Your task to perform on an android device: check out phone information Image 0: 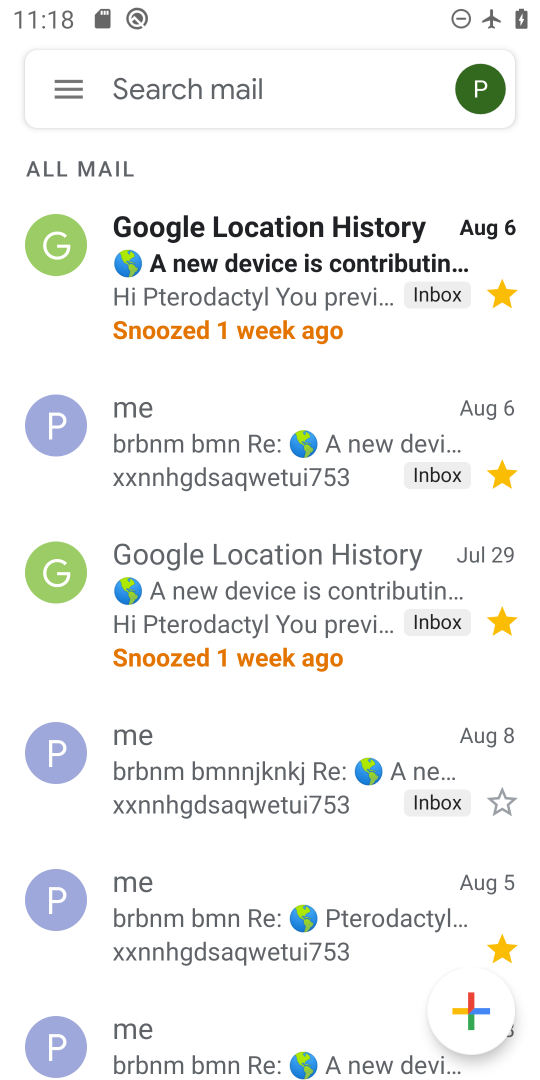
Step 0: press home button
Your task to perform on an android device: check out phone information Image 1: 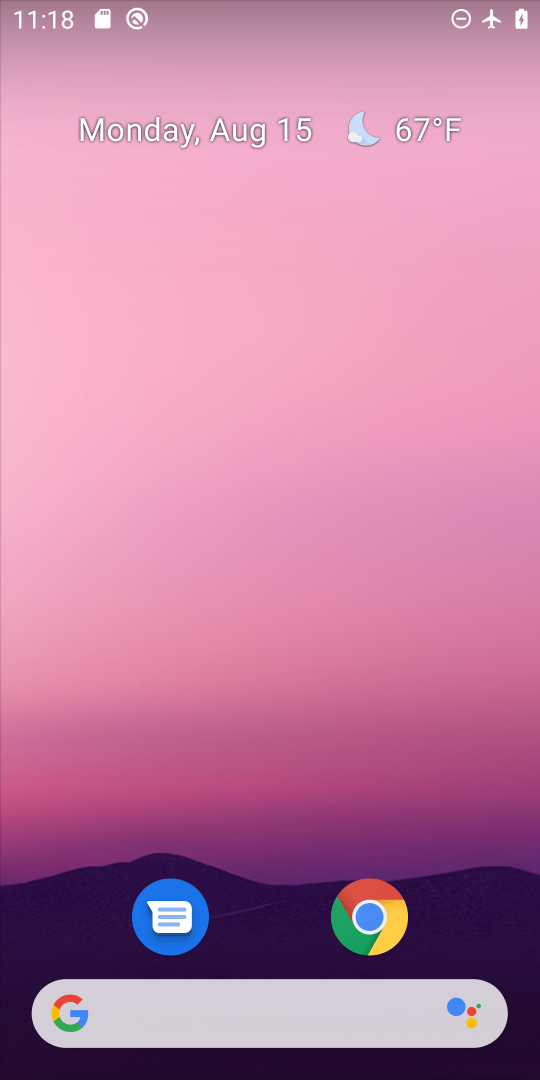
Step 1: drag from (242, 859) to (282, 101)
Your task to perform on an android device: check out phone information Image 2: 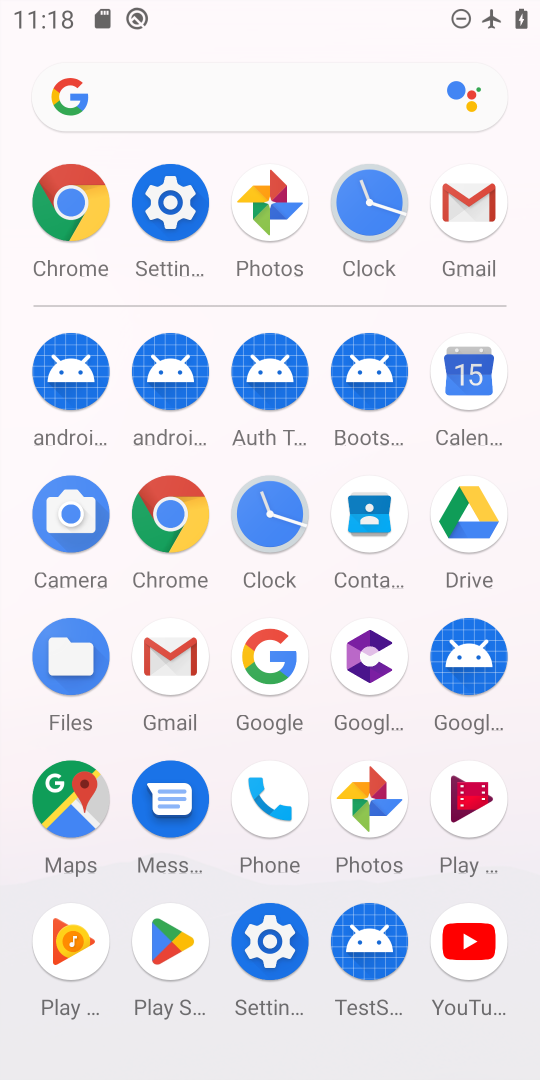
Step 2: click (277, 803)
Your task to perform on an android device: check out phone information Image 3: 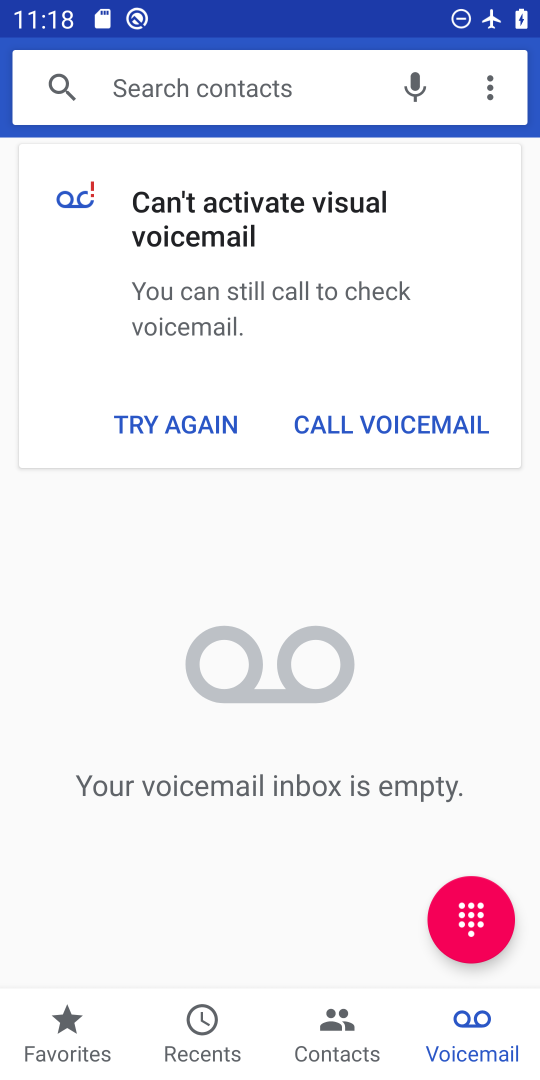
Step 3: click (491, 75)
Your task to perform on an android device: check out phone information Image 4: 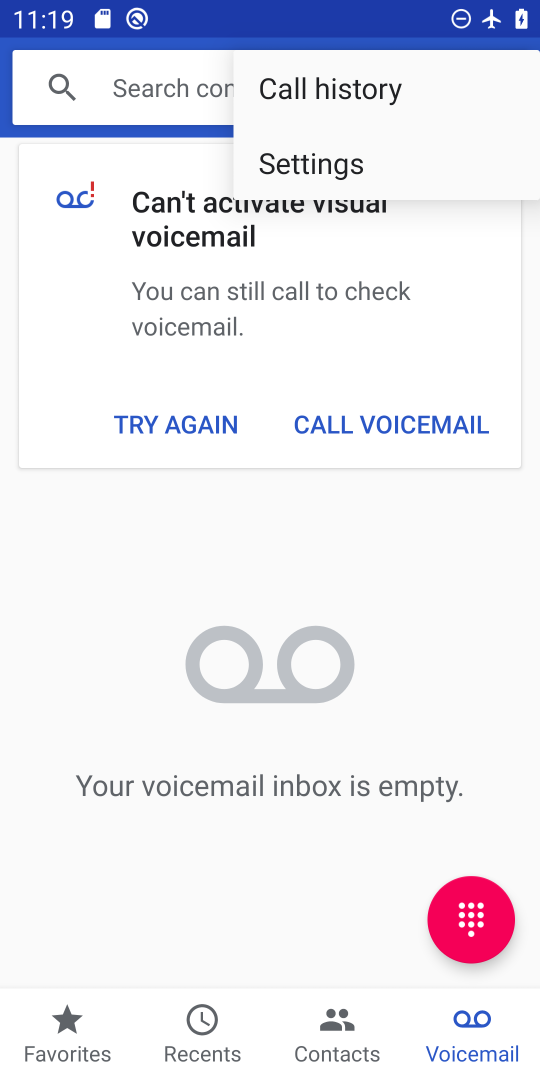
Step 4: click (413, 170)
Your task to perform on an android device: check out phone information Image 5: 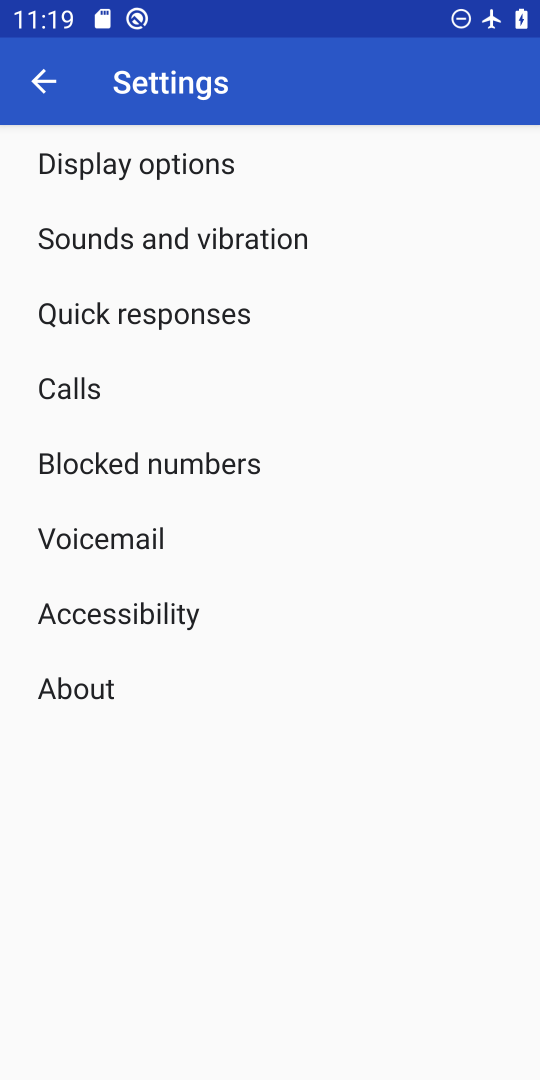
Step 5: click (85, 674)
Your task to perform on an android device: check out phone information Image 6: 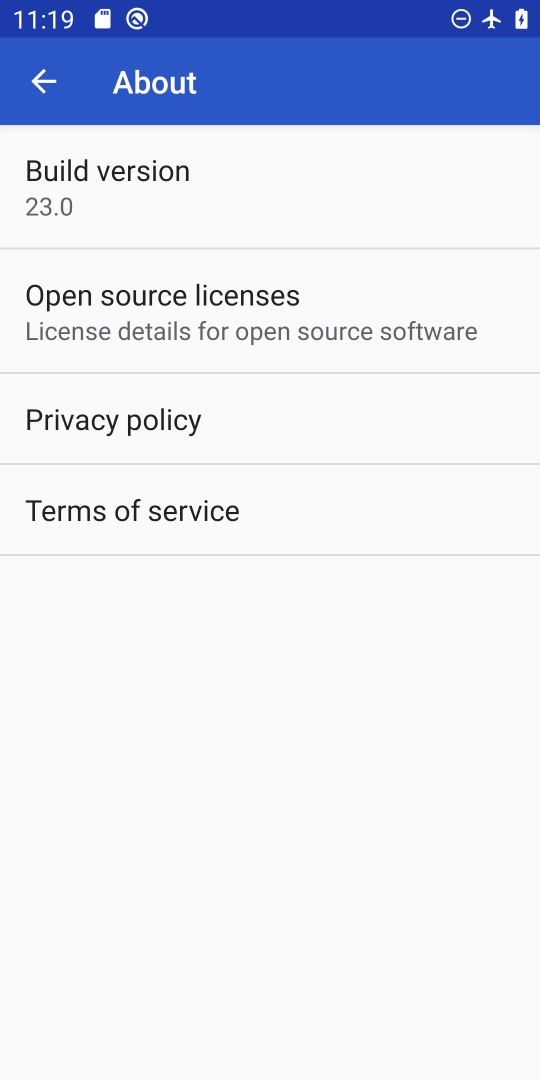
Step 6: task complete